Your task to perform on an android device: Open display settings Image 0: 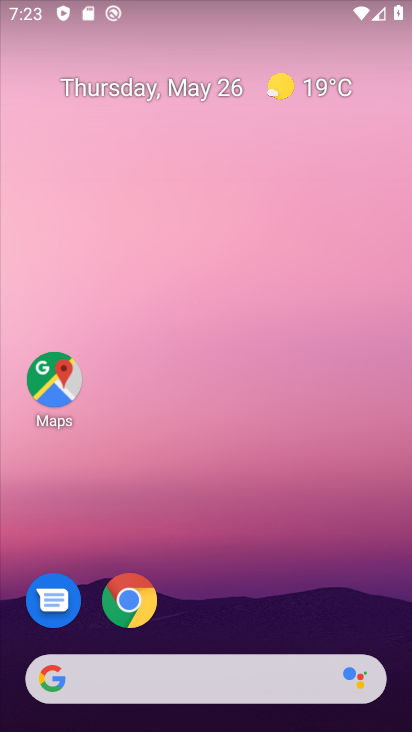
Step 0: drag from (308, 702) to (329, 245)
Your task to perform on an android device: Open display settings Image 1: 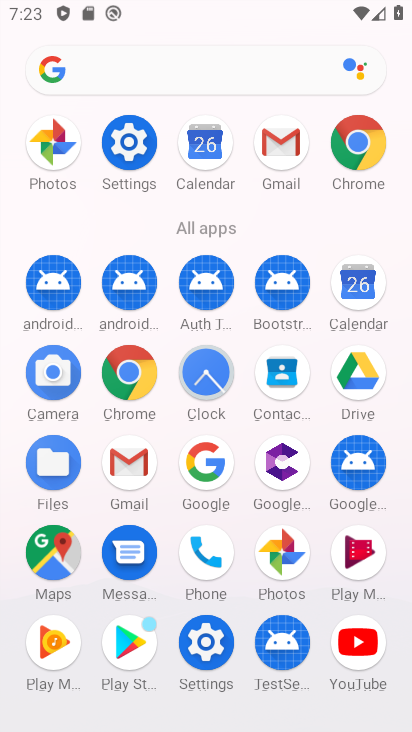
Step 1: click (202, 650)
Your task to perform on an android device: Open display settings Image 2: 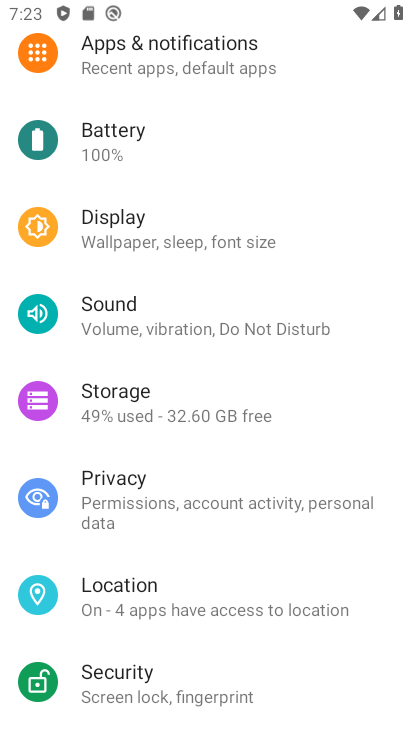
Step 2: click (158, 254)
Your task to perform on an android device: Open display settings Image 3: 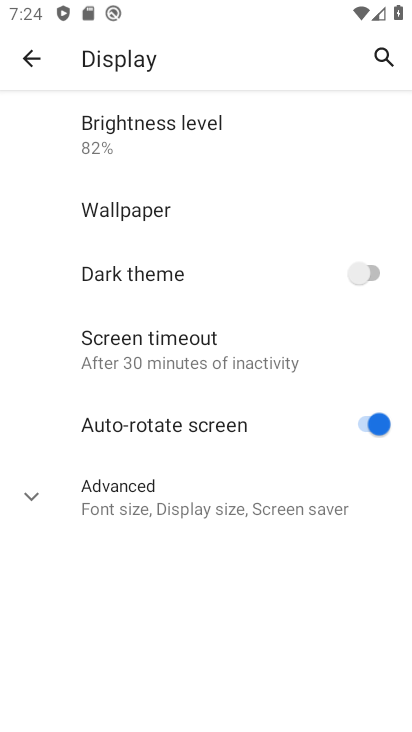
Step 3: task complete